Your task to perform on an android device: open app "Duolingo: language lessons" (install if not already installed) and enter user name: "omens@gmail.com" and password: "casks" Image 0: 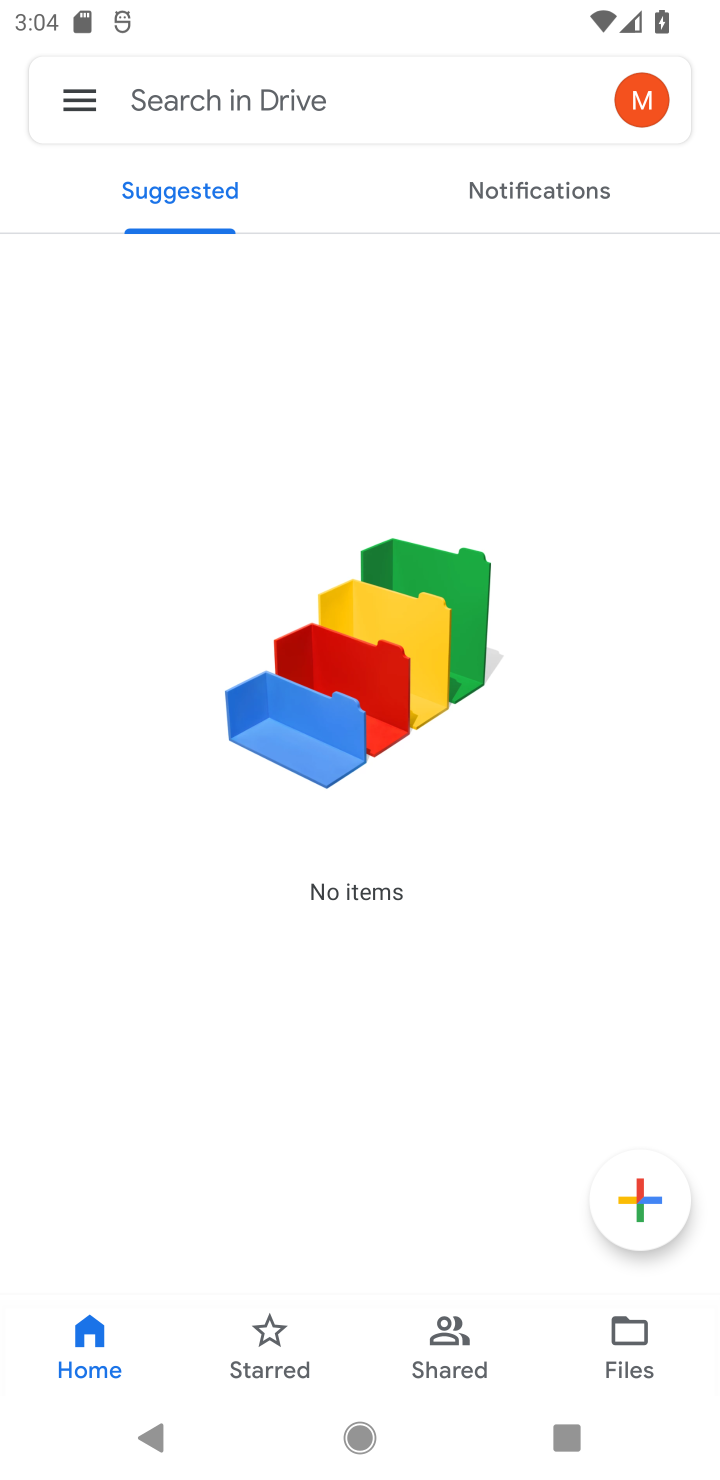
Step 0: press home button
Your task to perform on an android device: open app "Duolingo: language lessons" (install if not already installed) and enter user name: "omens@gmail.com" and password: "casks" Image 1: 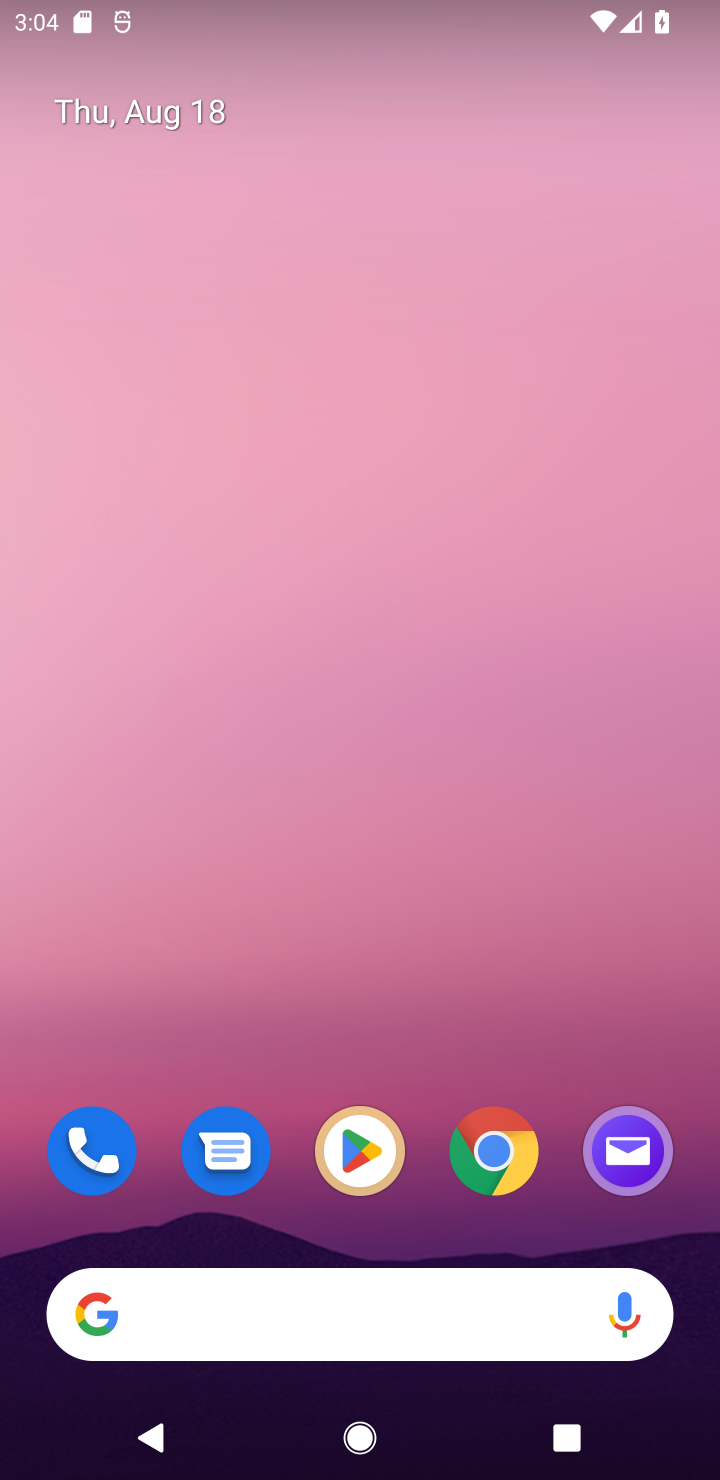
Step 1: click (372, 1174)
Your task to perform on an android device: open app "Duolingo: language lessons" (install if not already installed) and enter user name: "omens@gmail.com" and password: "casks" Image 2: 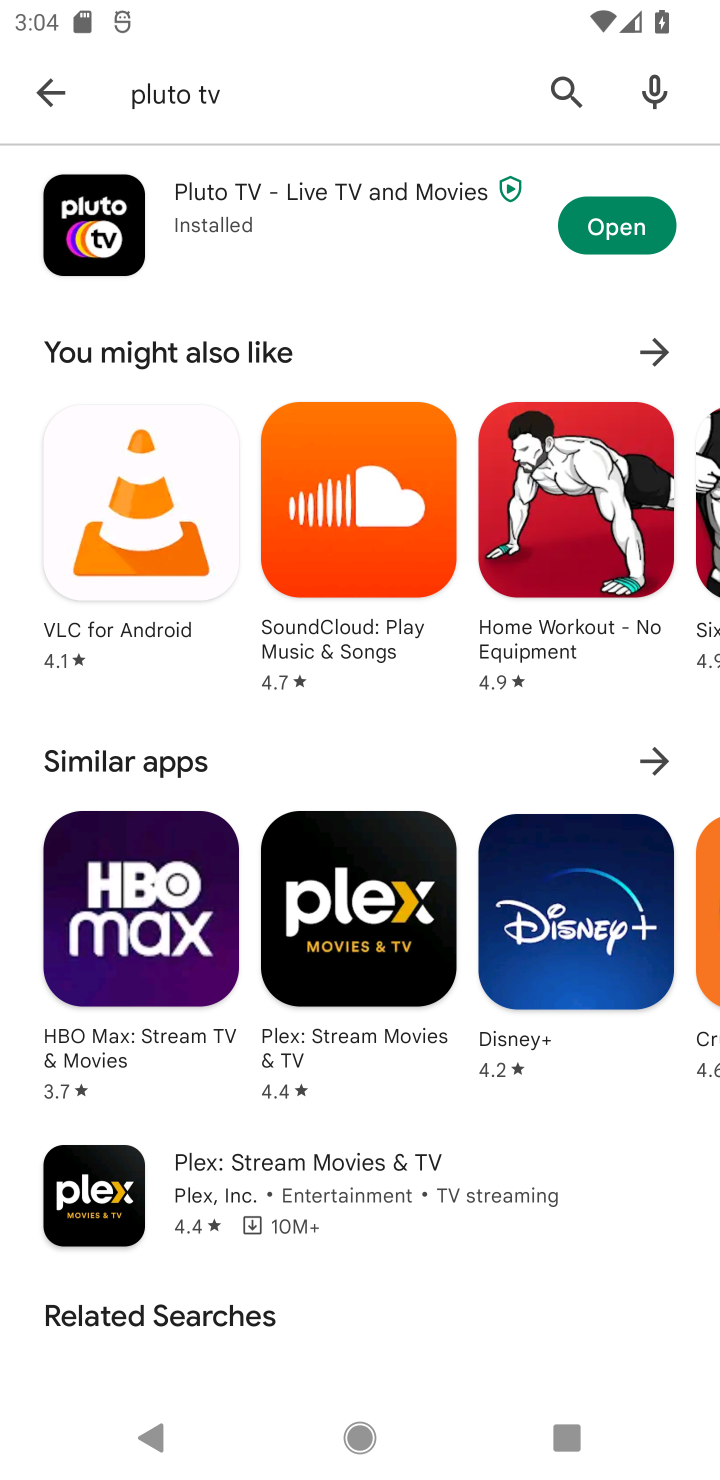
Step 2: click (548, 115)
Your task to perform on an android device: open app "Duolingo: language lessons" (install if not already installed) and enter user name: "omens@gmail.com" and password: "casks" Image 3: 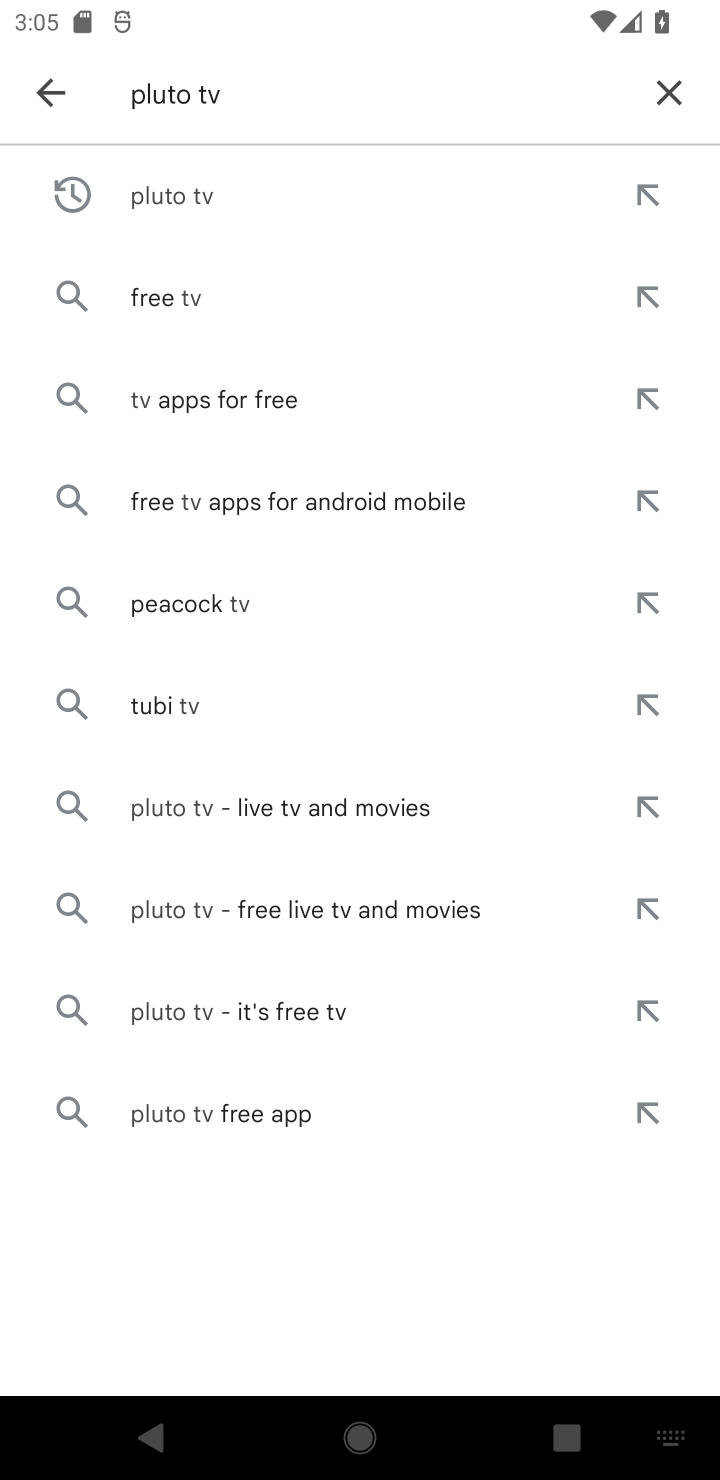
Step 3: click (661, 115)
Your task to perform on an android device: open app "Duolingo: language lessons" (install if not already installed) and enter user name: "omens@gmail.com" and password: "casks" Image 4: 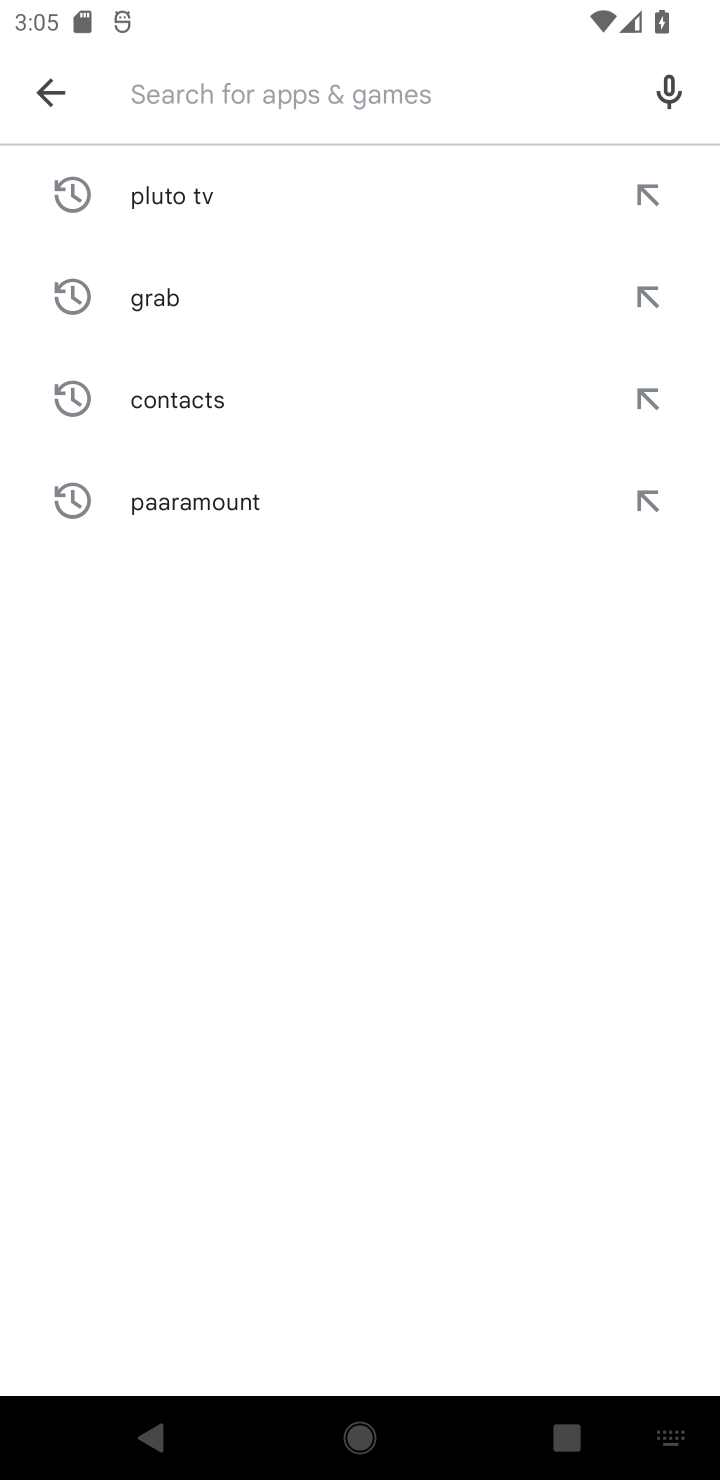
Step 4: type "duolingo"
Your task to perform on an android device: open app "Duolingo: language lessons" (install if not already installed) and enter user name: "omens@gmail.com" and password: "casks" Image 5: 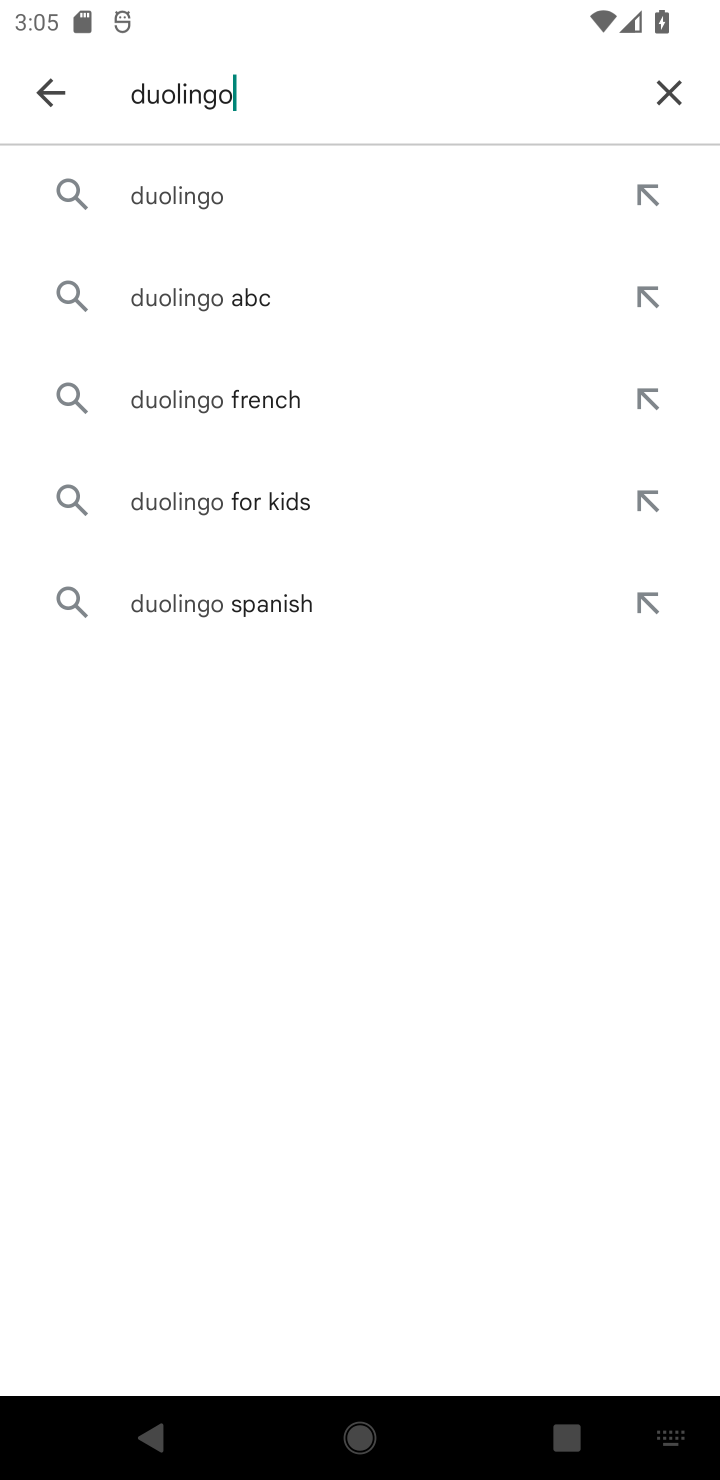
Step 5: click (125, 205)
Your task to perform on an android device: open app "Duolingo: language lessons" (install if not already installed) and enter user name: "omens@gmail.com" and password: "casks" Image 6: 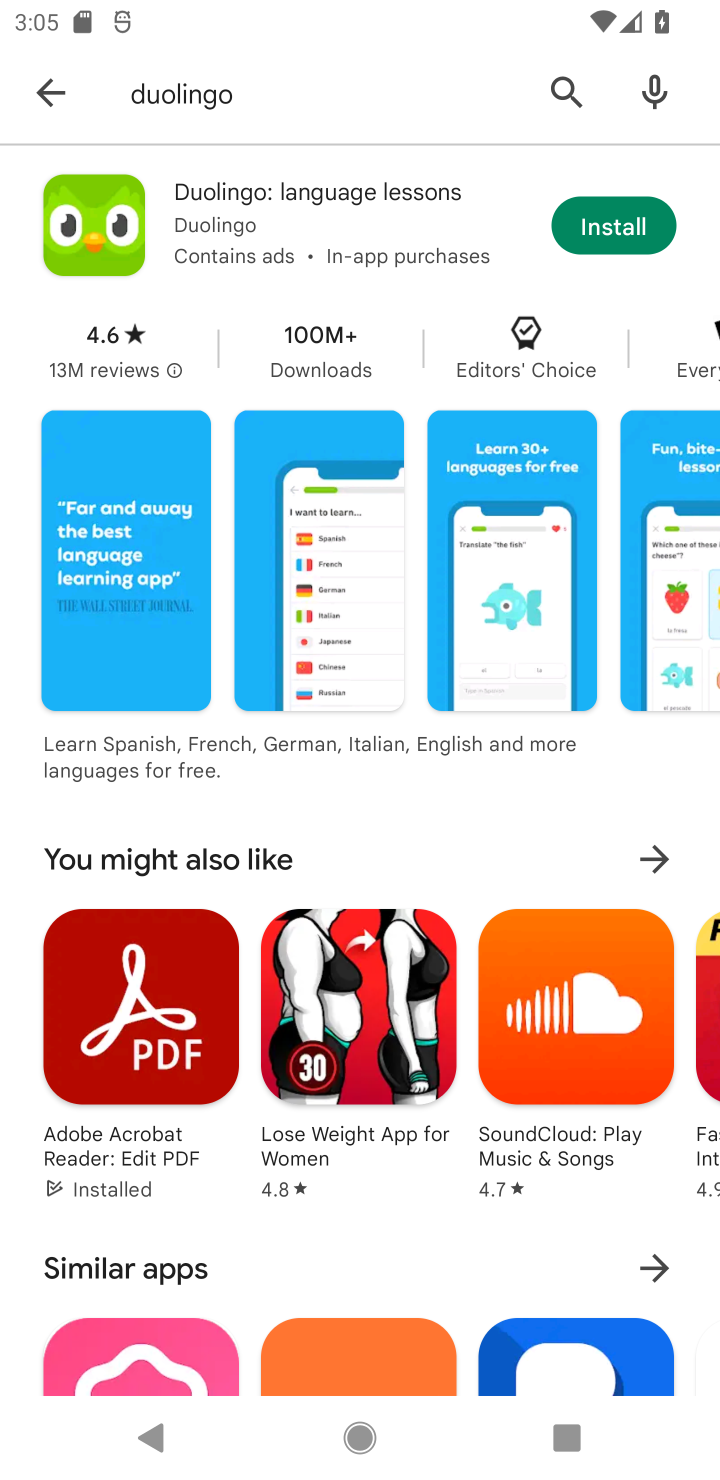
Step 6: click (614, 244)
Your task to perform on an android device: open app "Duolingo: language lessons" (install if not already installed) and enter user name: "omens@gmail.com" and password: "casks" Image 7: 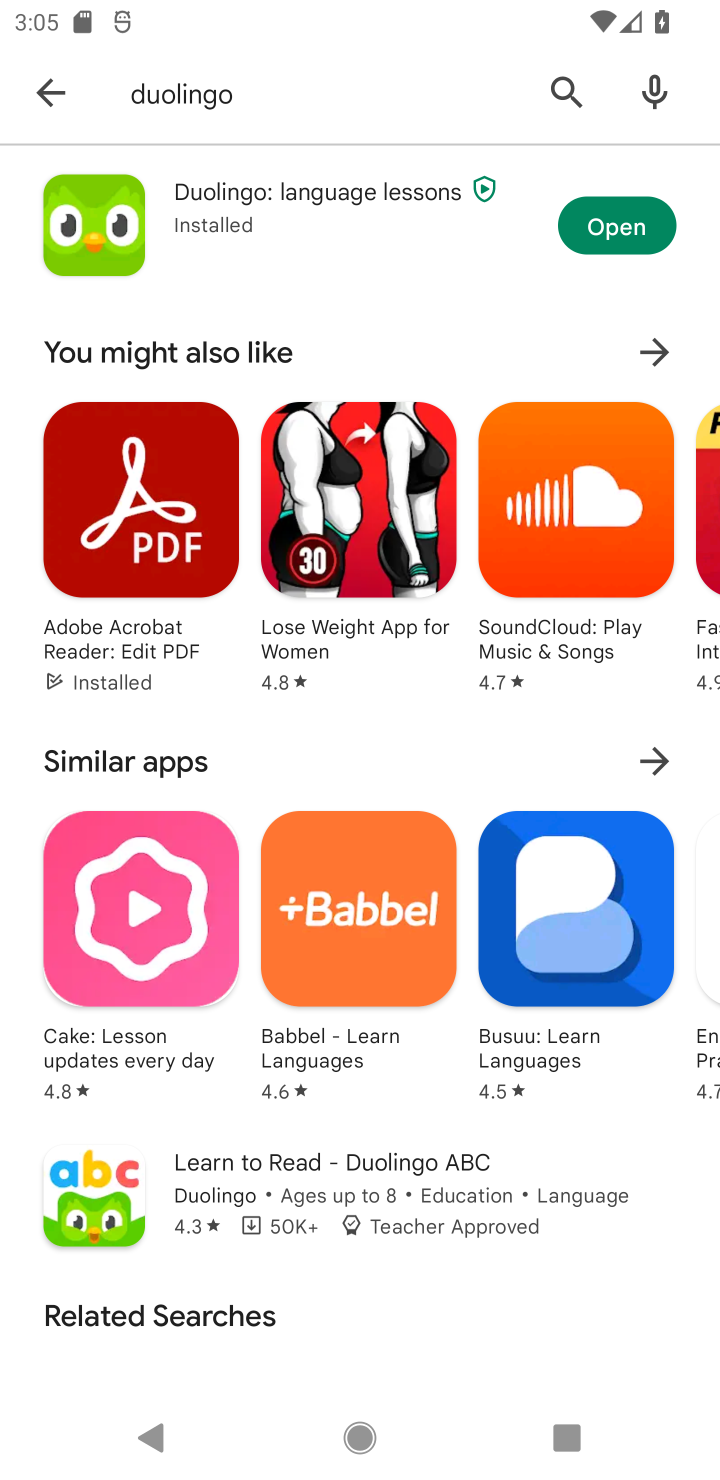
Step 7: click (656, 213)
Your task to perform on an android device: open app "Duolingo: language lessons" (install if not already installed) and enter user name: "omens@gmail.com" and password: "casks" Image 8: 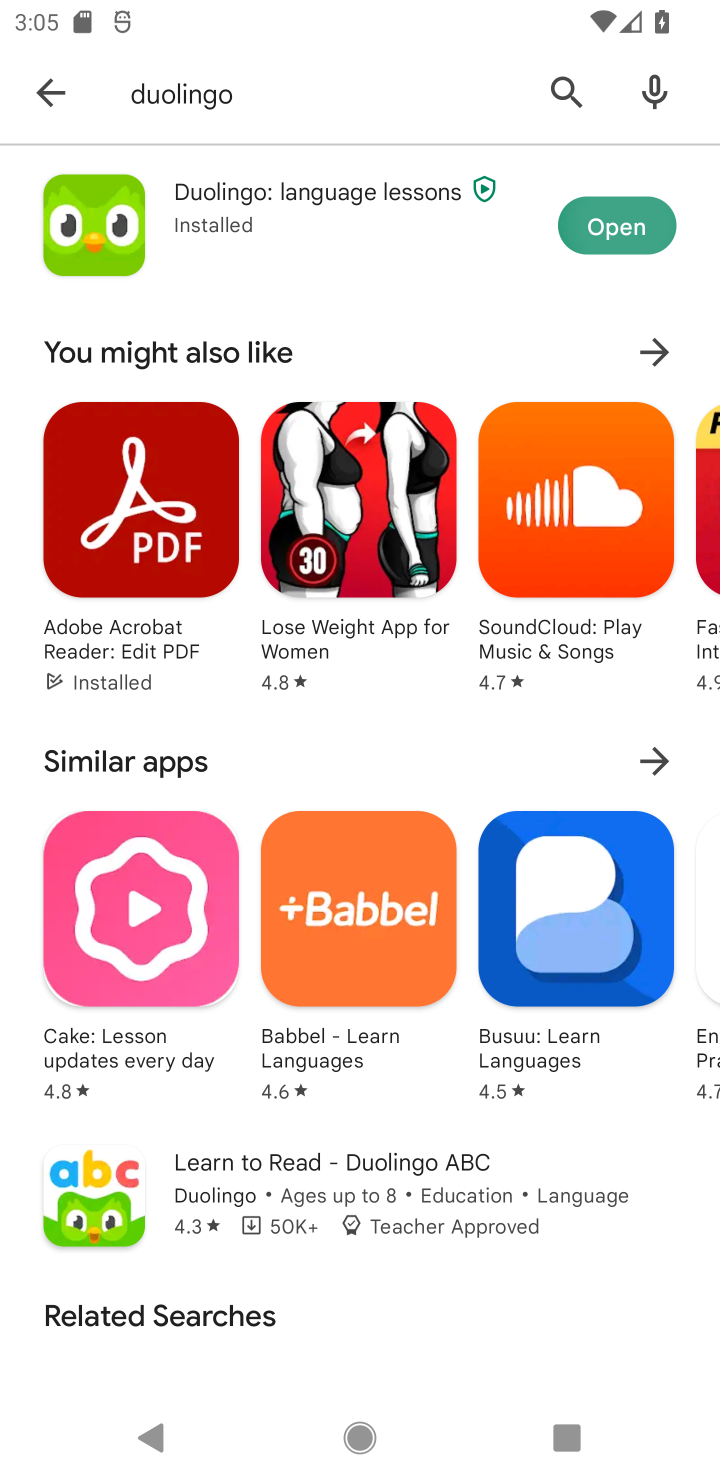
Step 8: task complete